Your task to perform on an android device: add a contact in the contacts app Image 0: 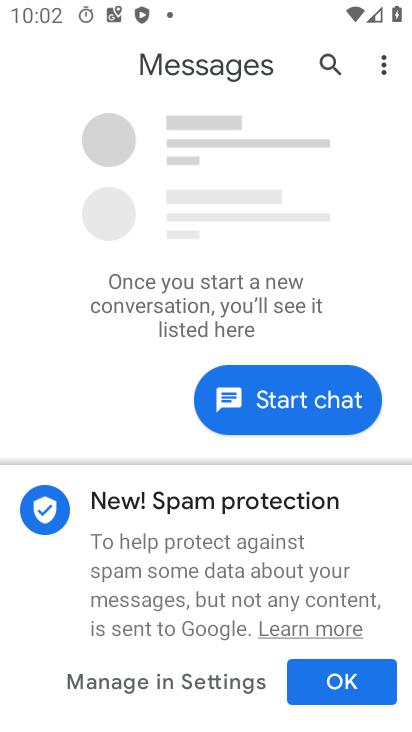
Step 0: press home button
Your task to perform on an android device: add a contact in the contacts app Image 1: 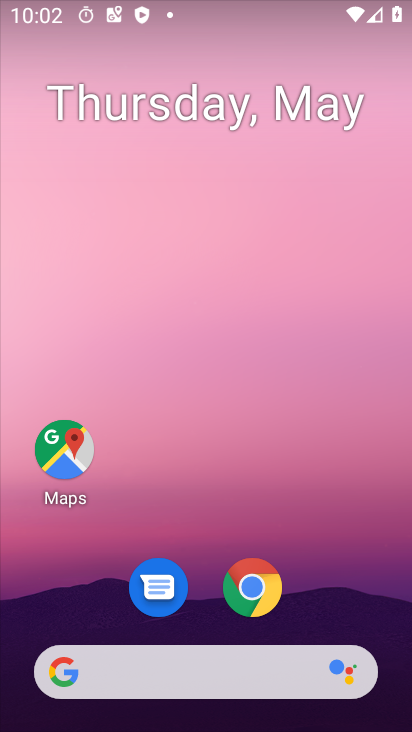
Step 1: drag from (361, 641) to (353, 18)
Your task to perform on an android device: add a contact in the contacts app Image 2: 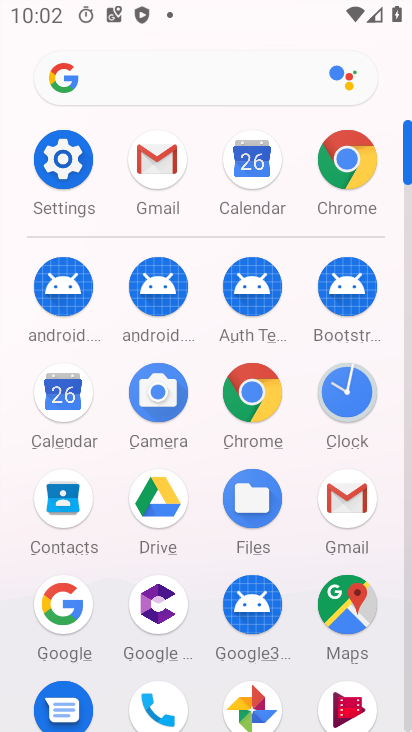
Step 2: click (65, 503)
Your task to perform on an android device: add a contact in the contacts app Image 3: 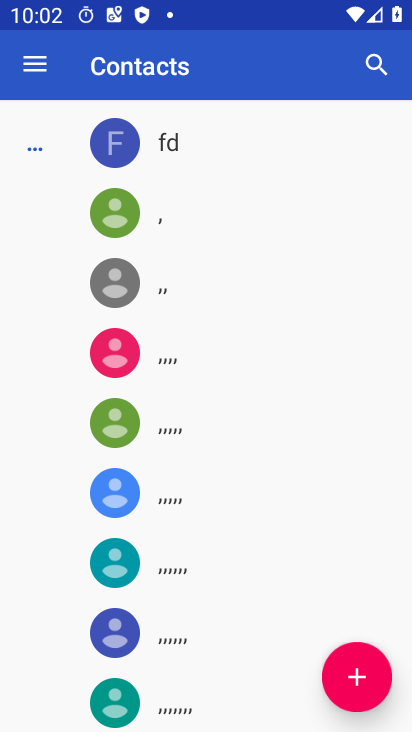
Step 3: click (351, 689)
Your task to perform on an android device: add a contact in the contacts app Image 4: 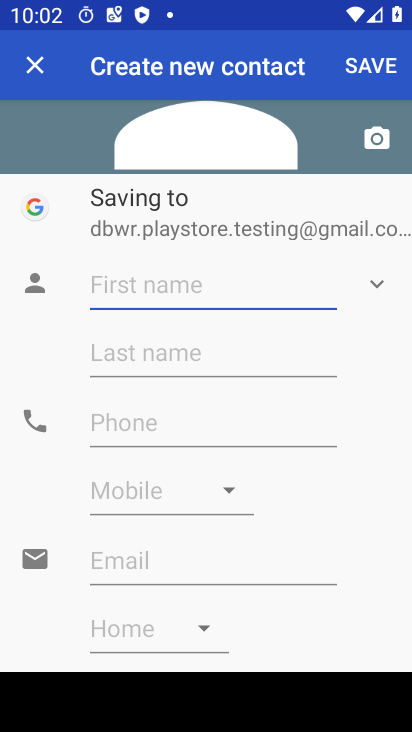
Step 4: type "surya"
Your task to perform on an android device: add a contact in the contacts app Image 5: 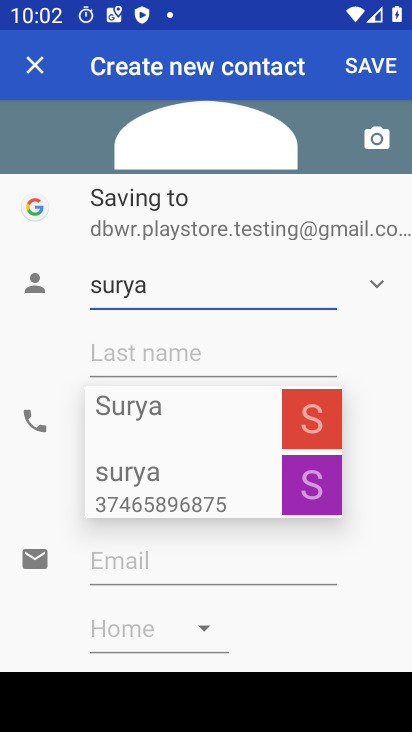
Step 5: click (394, 414)
Your task to perform on an android device: add a contact in the contacts app Image 6: 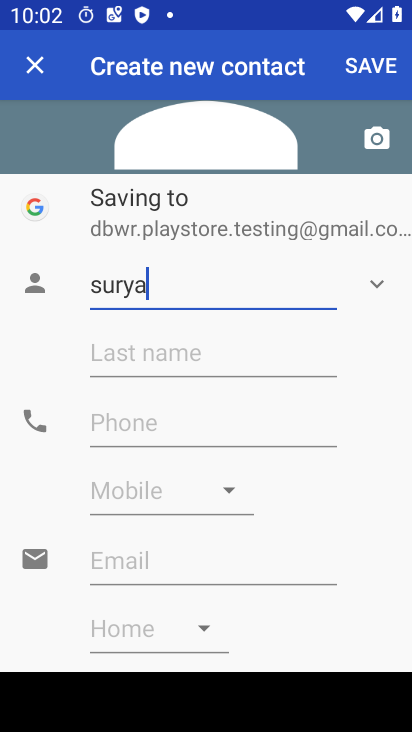
Step 6: click (128, 429)
Your task to perform on an android device: add a contact in the contacts app Image 7: 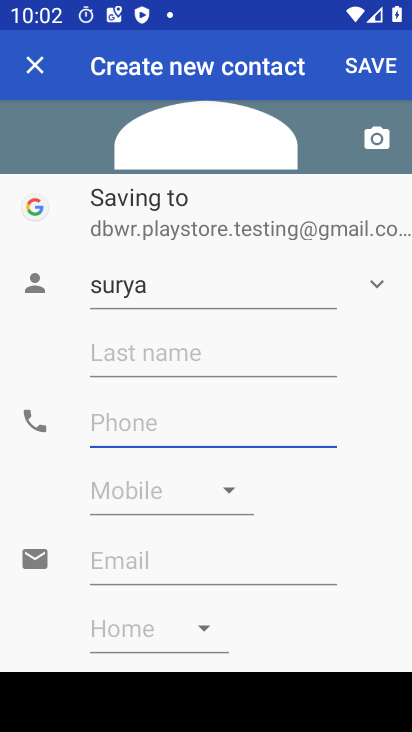
Step 7: type "8765567788"
Your task to perform on an android device: add a contact in the contacts app Image 8: 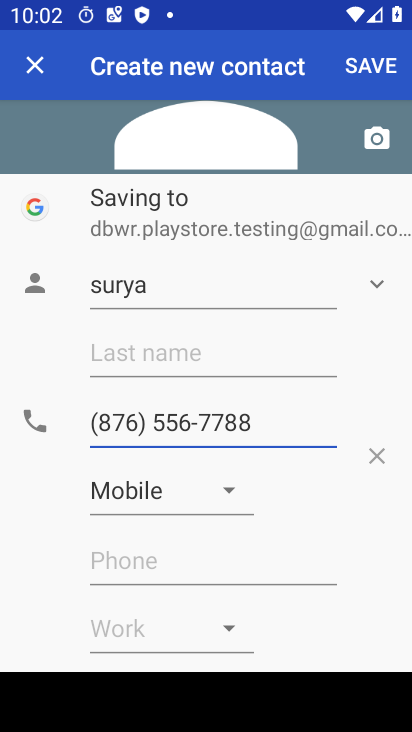
Step 8: click (378, 76)
Your task to perform on an android device: add a contact in the contacts app Image 9: 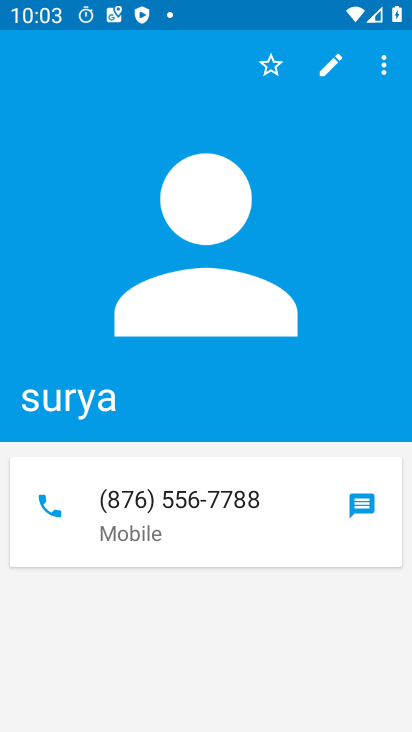
Step 9: task complete